Your task to perform on an android device: check google app version Image 0: 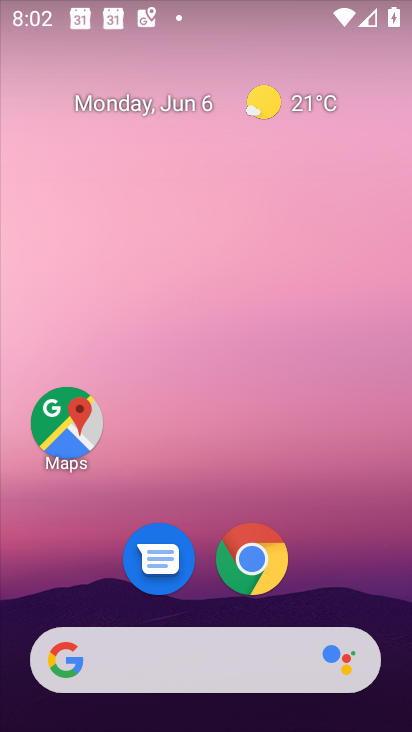
Step 0: drag from (239, 728) to (218, 103)
Your task to perform on an android device: check google app version Image 1: 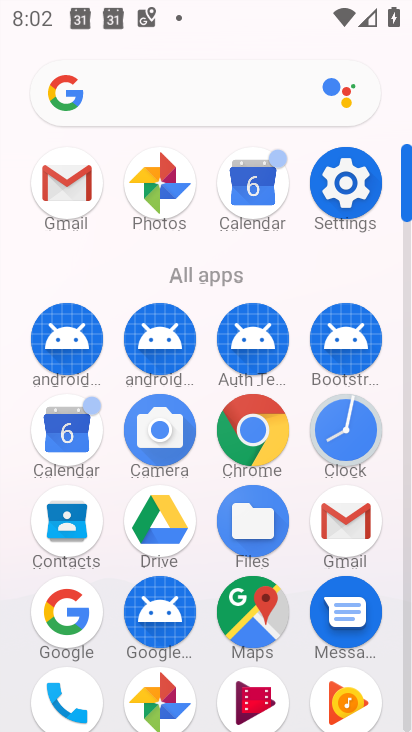
Step 1: click (41, 619)
Your task to perform on an android device: check google app version Image 2: 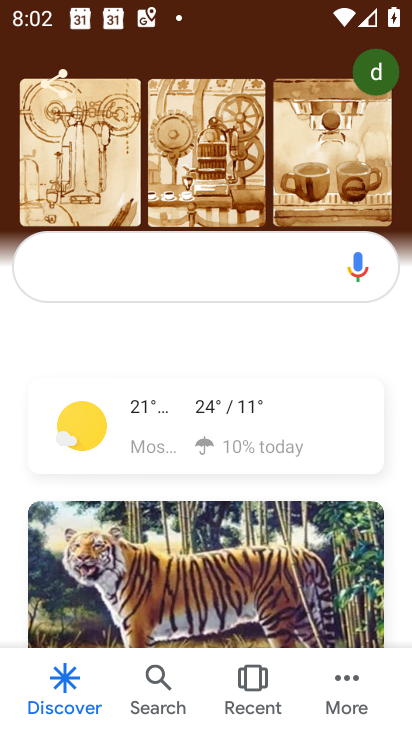
Step 2: click (347, 676)
Your task to perform on an android device: check google app version Image 3: 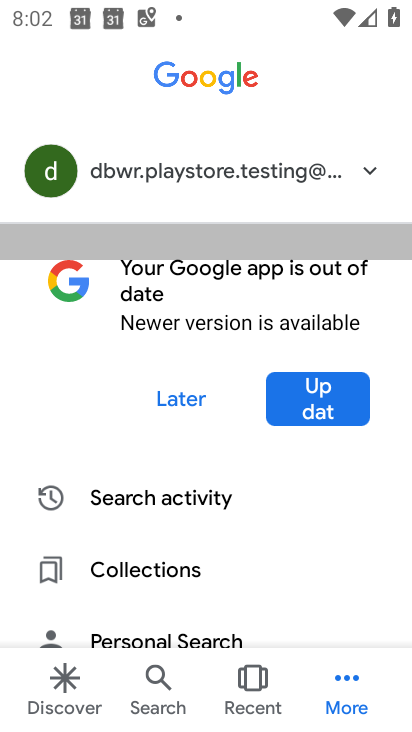
Step 3: drag from (130, 610) to (134, 246)
Your task to perform on an android device: check google app version Image 4: 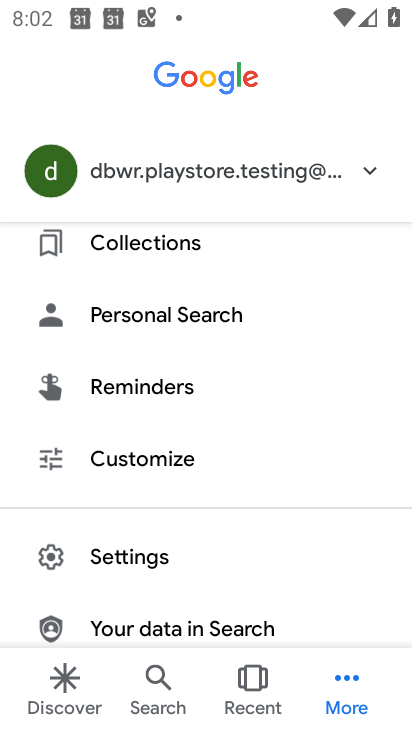
Step 4: click (132, 557)
Your task to perform on an android device: check google app version Image 5: 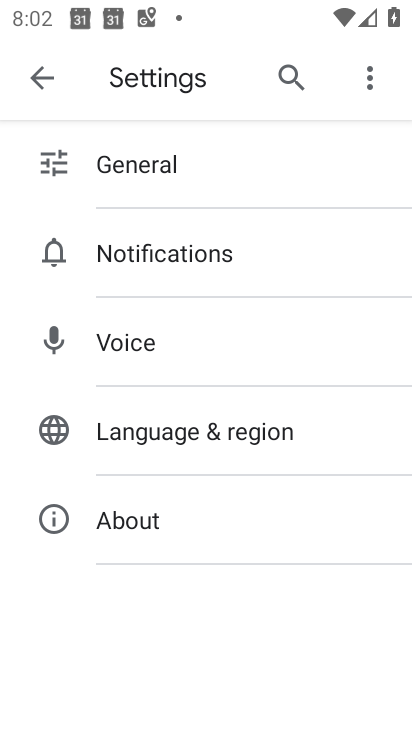
Step 5: click (133, 516)
Your task to perform on an android device: check google app version Image 6: 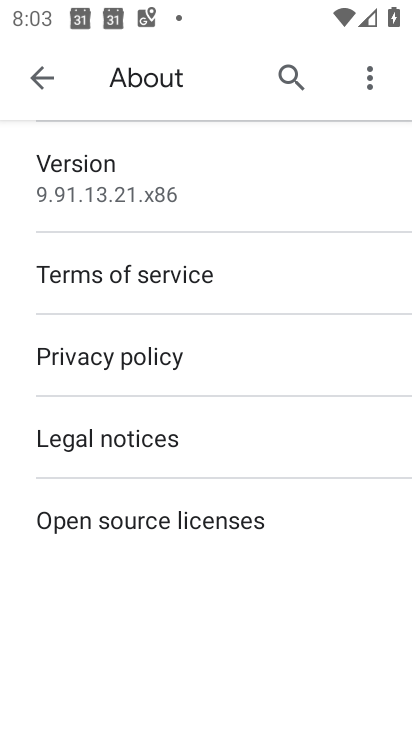
Step 6: task complete